Your task to perform on an android device: Clear all items from cart on target. Add razer nari to the cart on target Image 0: 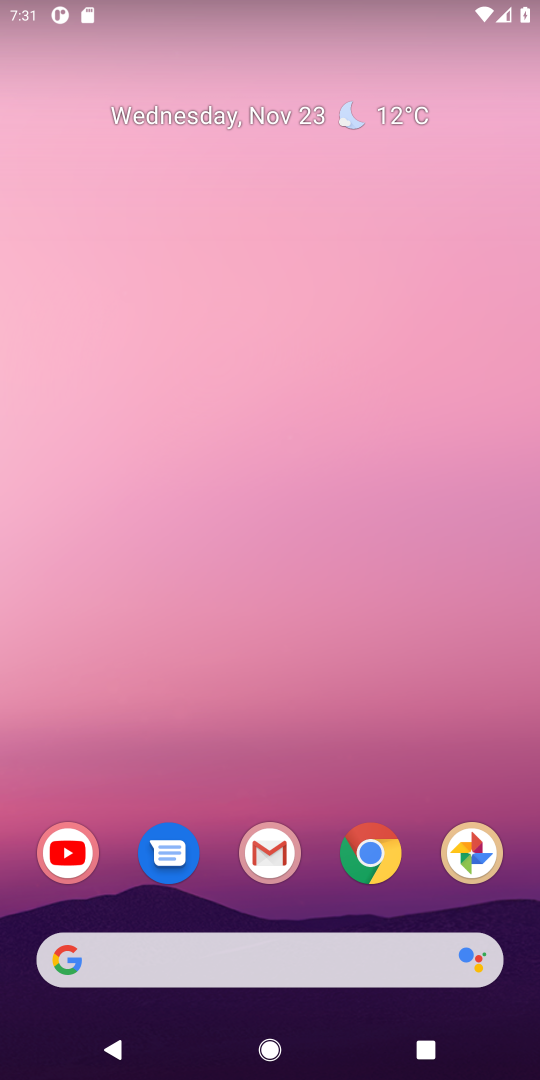
Step 0: click (373, 858)
Your task to perform on an android device: Clear all items from cart on target. Add razer nari to the cart on target Image 1: 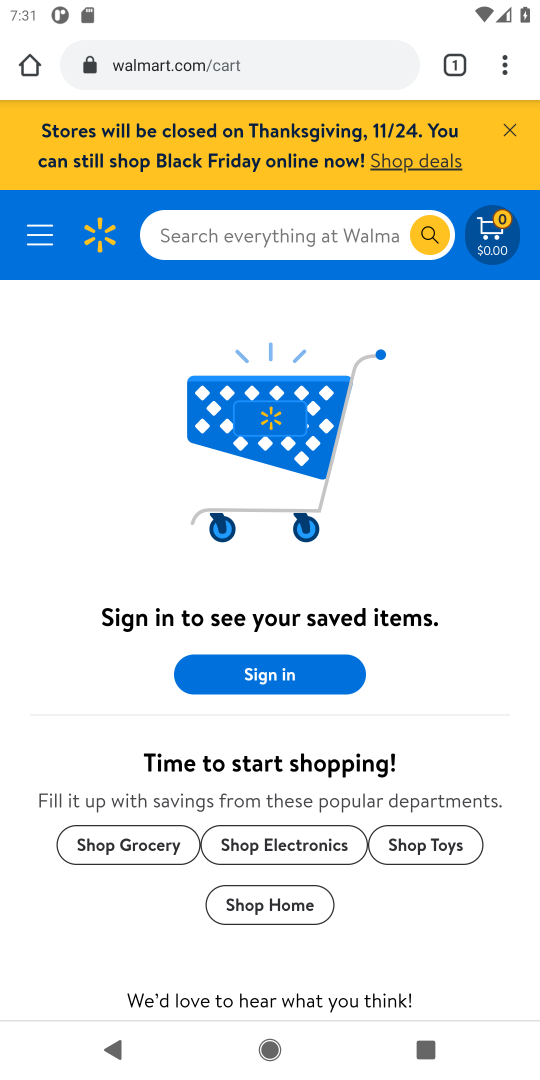
Step 1: click (205, 65)
Your task to perform on an android device: Clear all items from cart on target. Add razer nari to the cart on target Image 2: 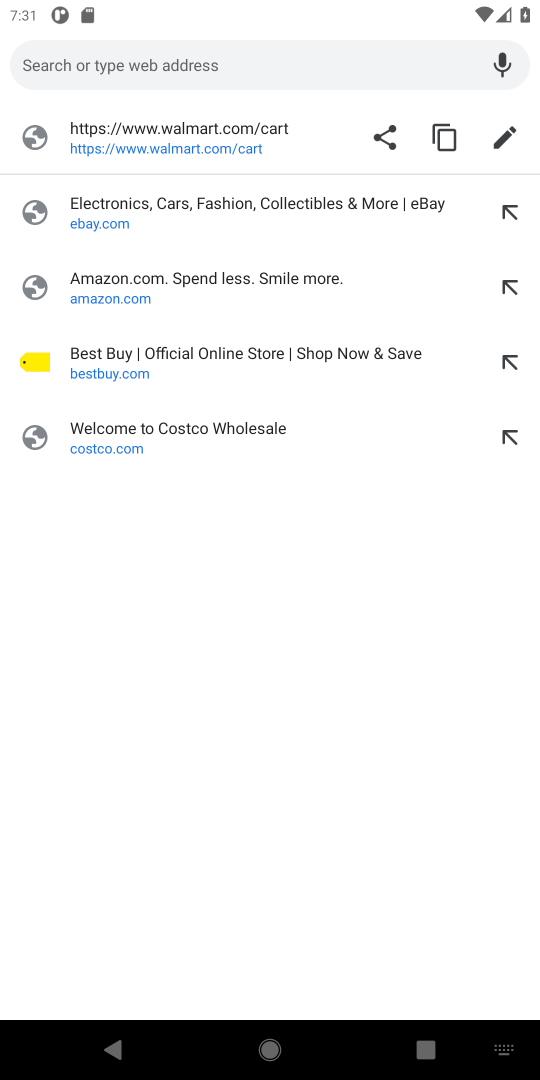
Step 2: type "target.com"
Your task to perform on an android device: Clear all items from cart on target. Add razer nari to the cart on target Image 3: 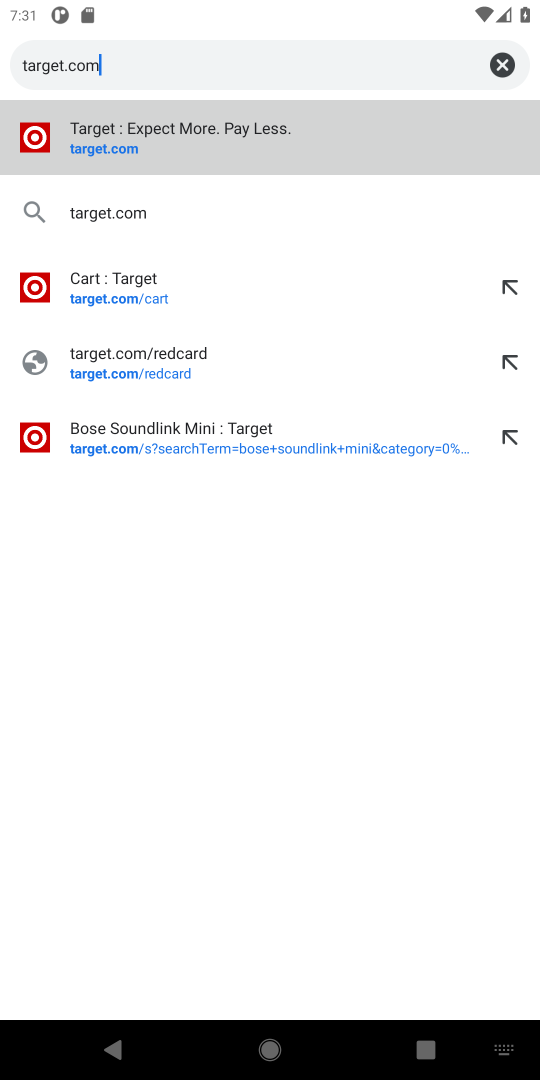
Step 3: click (86, 155)
Your task to perform on an android device: Clear all items from cart on target. Add razer nari to the cart on target Image 4: 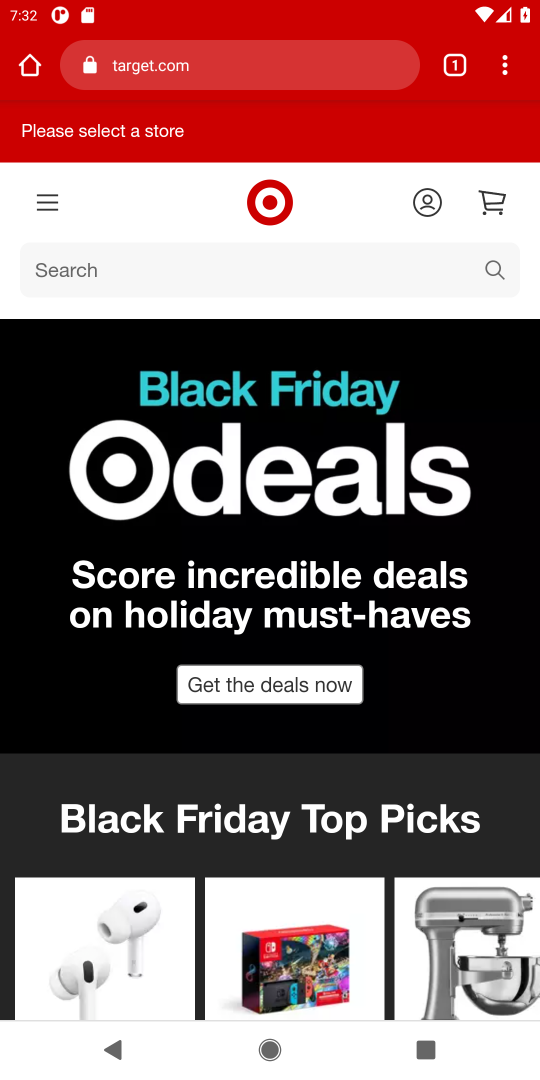
Step 4: click (495, 206)
Your task to perform on an android device: Clear all items from cart on target. Add razer nari to the cart on target Image 5: 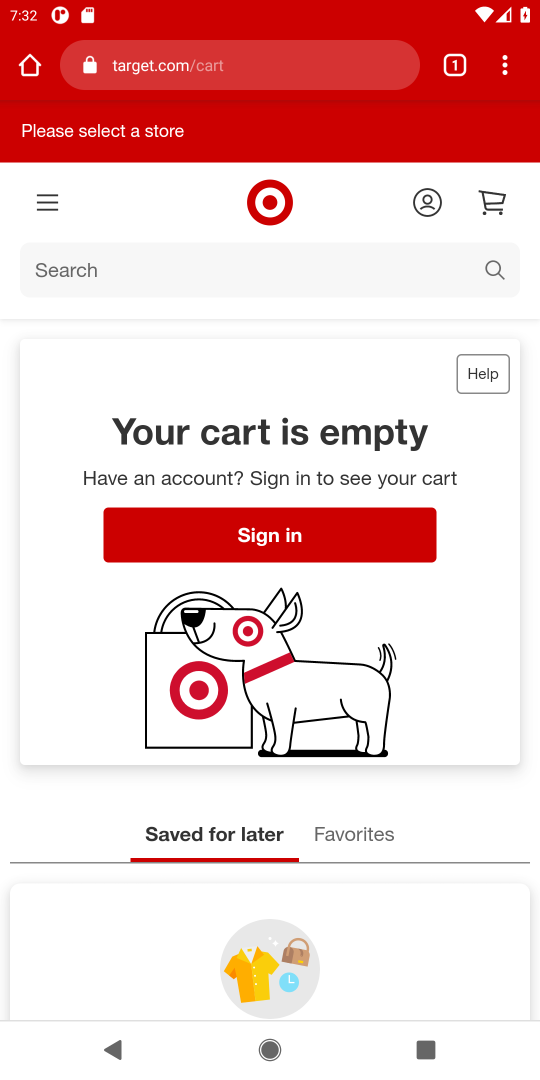
Step 5: click (488, 274)
Your task to perform on an android device: Clear all items from cart on target. Add razer nari to the cart on target Image 6: 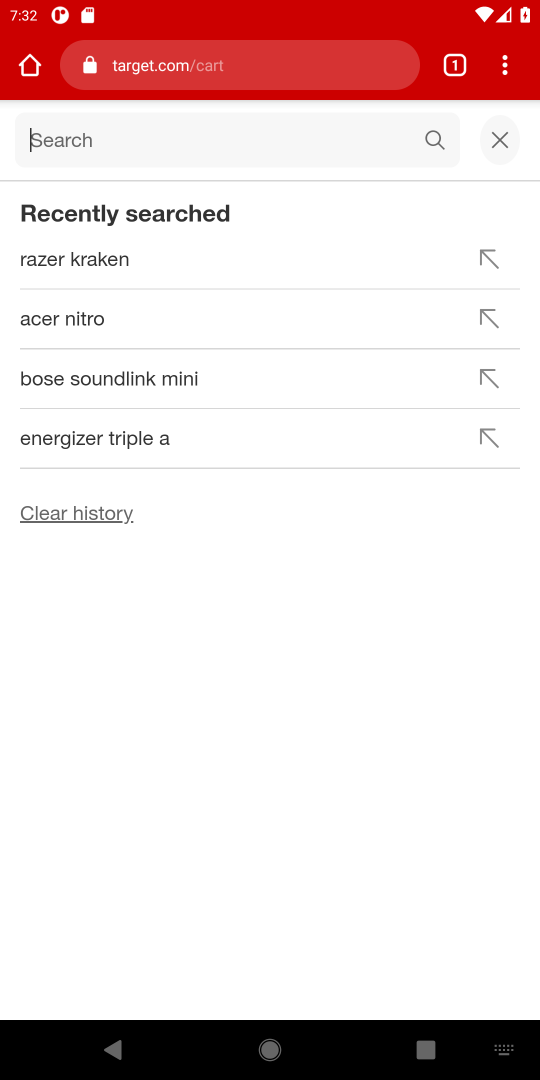
Step 6: type " razer nari "
Your task to perform on an android device: Clear all items from cart on target. Add razer nari to the cart on target Image 7: 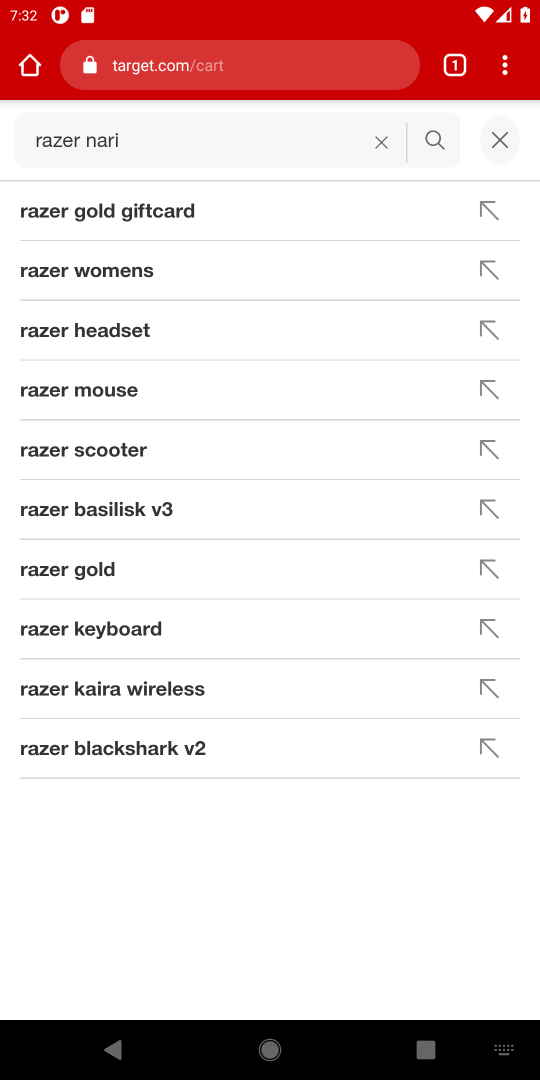
Step 7: click (435, 141)
Your task to perform on an android device: Clear all items from cart on target. Add razer nari to the cart on target Image 8: 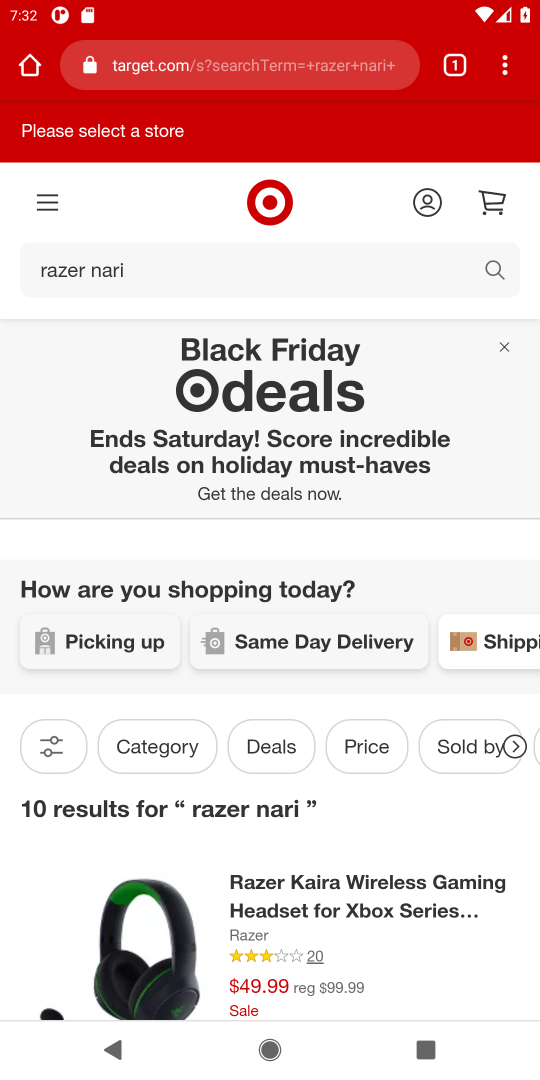
Step 8: task complete